Your task to perform on an android device: read, delete, or share a saved page in the chrome app Image 0: 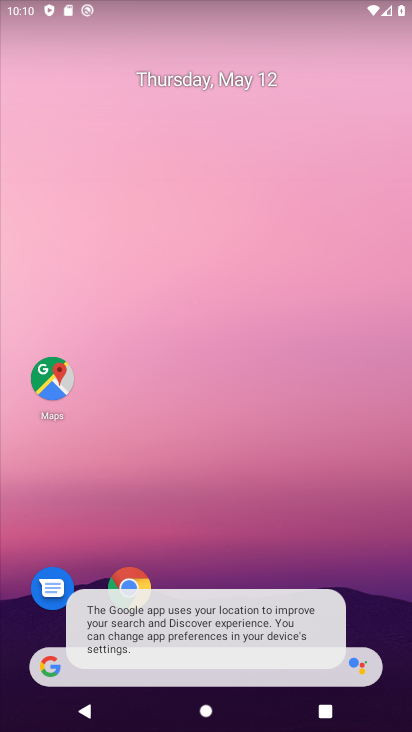
Step 0: click (144, 588)
Your task to perform on an android device: read, delete, or share a saved page in the chrome app Image 1: 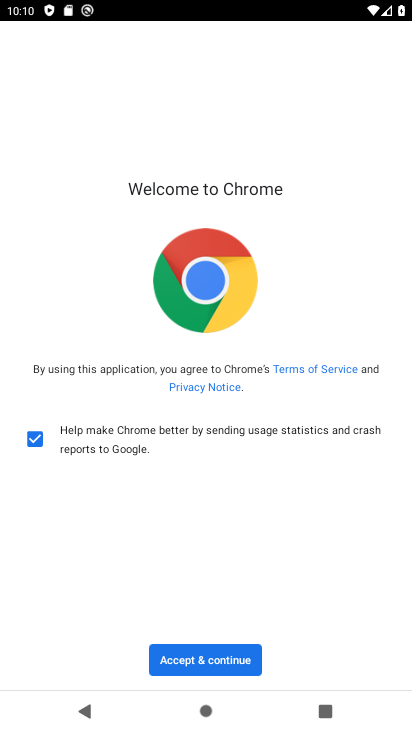
Step 1: click (159, 664)
Your task to perform on an android device: read, delete, or share a saved page in the chrome app Image 2: 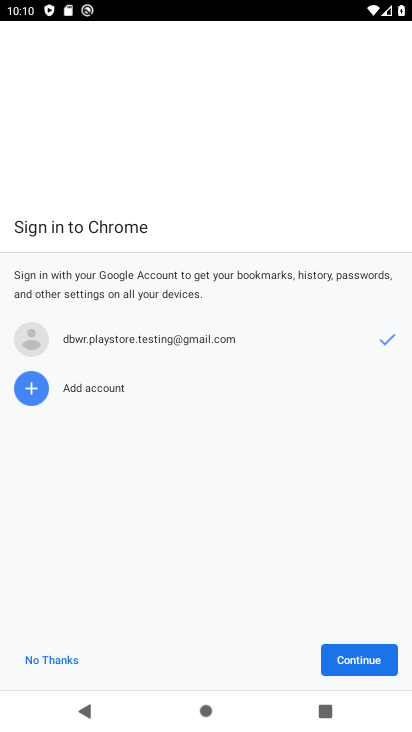
Step 2: click (336, 668)
Your task to perform on an android device: read, delete, or share a saved page in the chrome app Image 3: 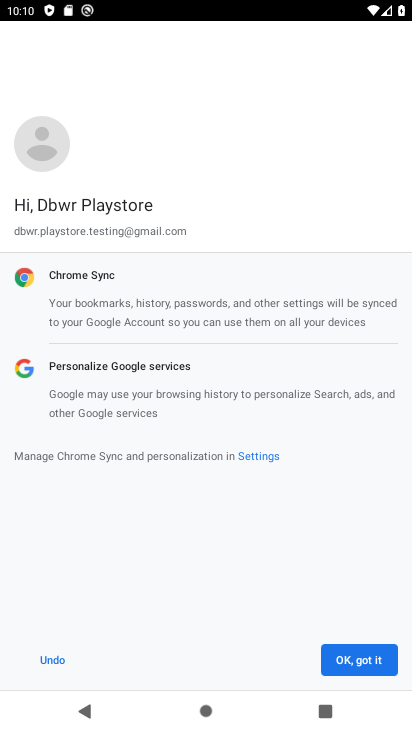
Step 3: click (336, 668)
Your task to perform on an android device: read, delete, or share a saved page in the chrome app Image 4: 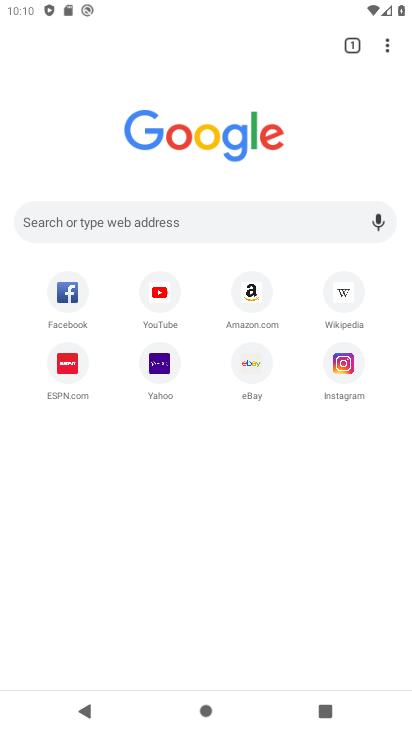
Step 4: click (394, 52)
Your task to perform on an android device: read, delete, or share a saved page in the chrome app Image 5: 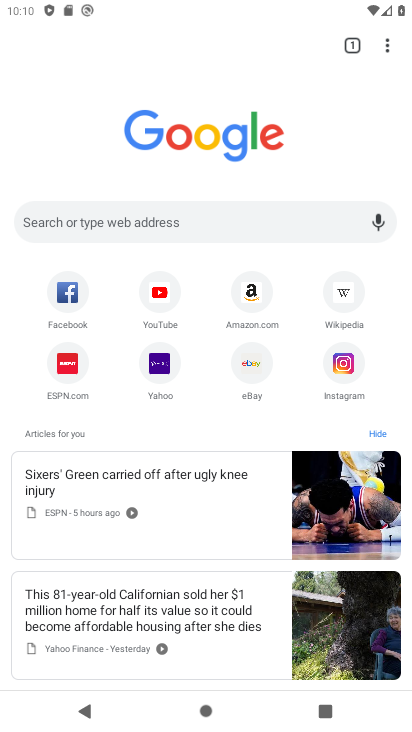
Step 5: click (394, 52)
Your task to perform on an android device: read, delete, or share a saved page in the chrome app Image 6: 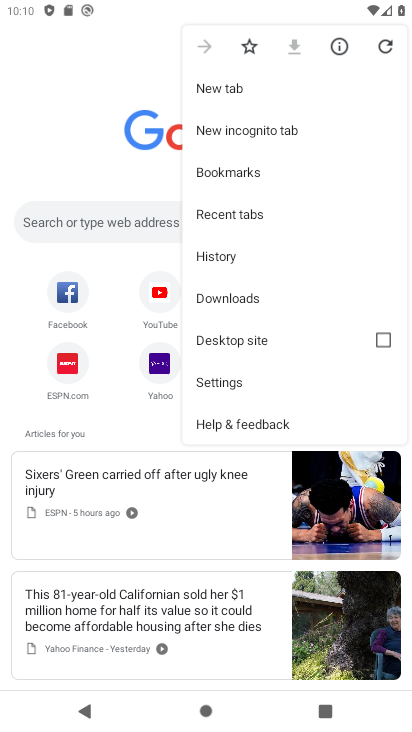
Step 6: click (248, 305)
Your task to perform on an android device: read, delete, or share a saved page in the chrome app Image 7: 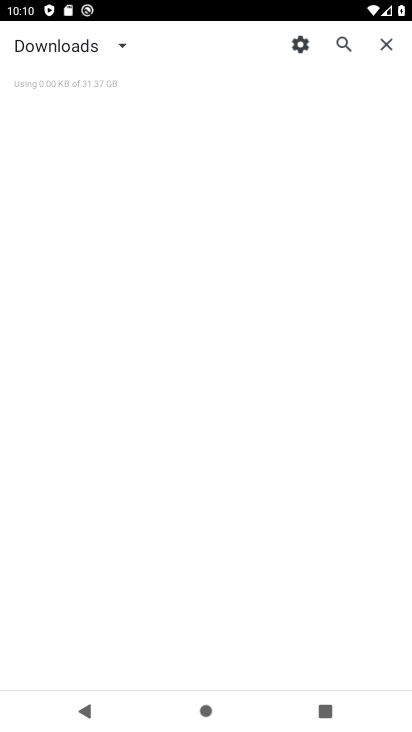
Step 7: click (63, 46)
Your task to perform on an android device: read, delete, or share a saved page in the chrome app Image 8: 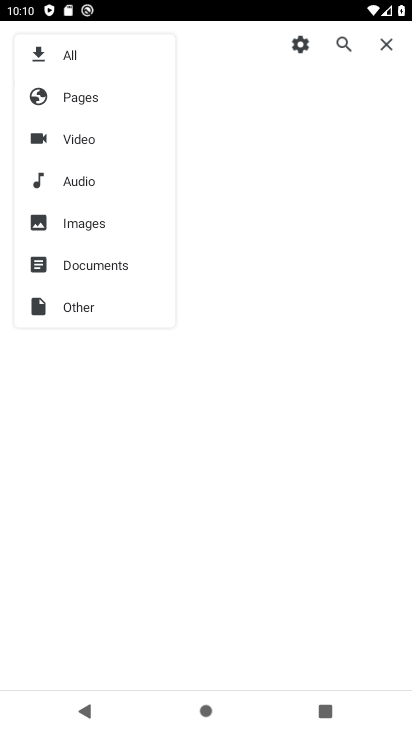
Step 8: click (55, 94)
Your task to perform on an android device: read, delete, or share a saved page in the chrome app Image 9: 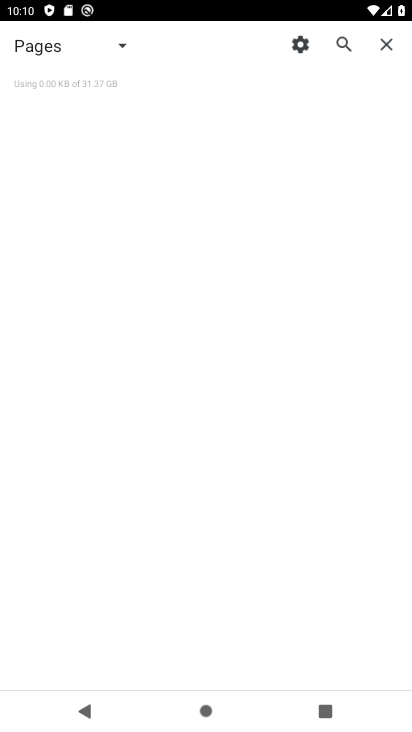
Step 9: task complete